Your task to perform on an android device: Open the calendar and show me this week's events? Image 0: 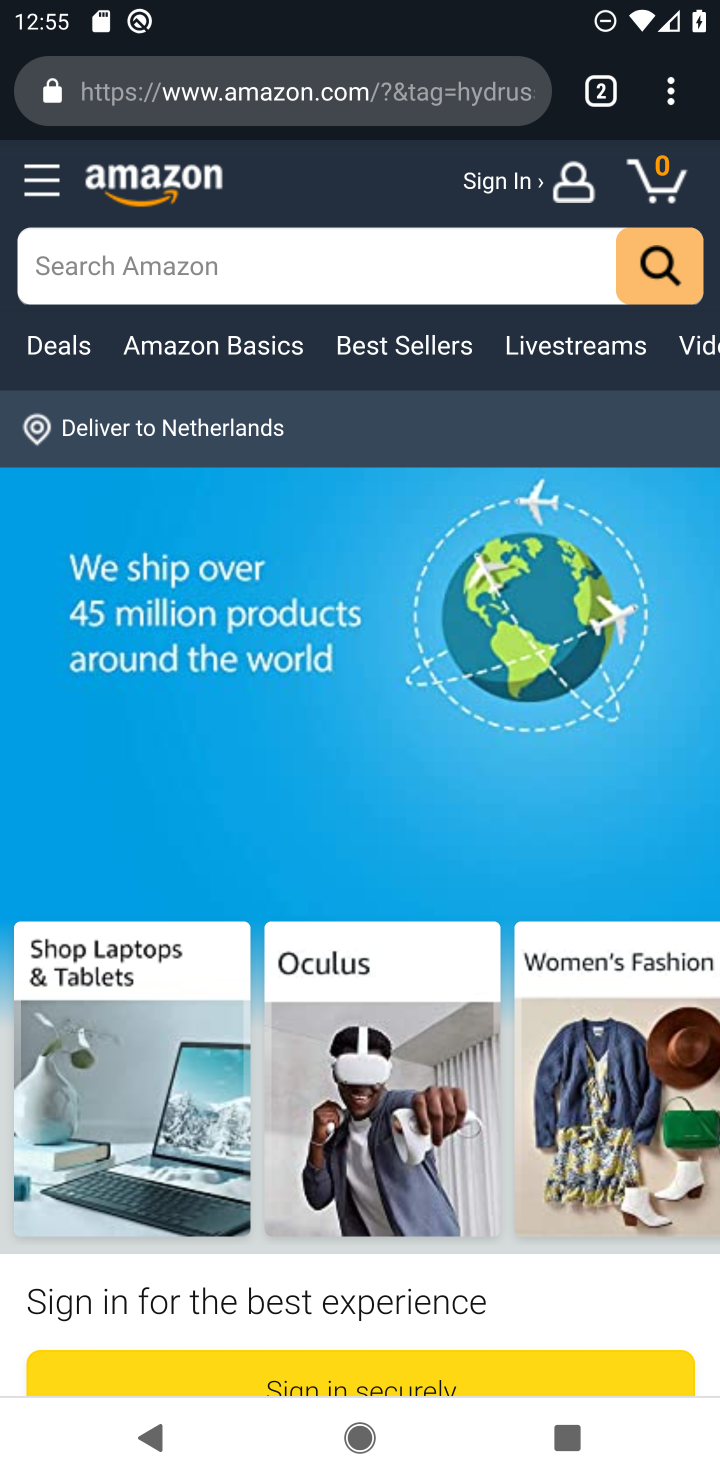
Step 0: press home button
Your task to perform on an android device: Open the calendar and show me this week's events? Image 1: 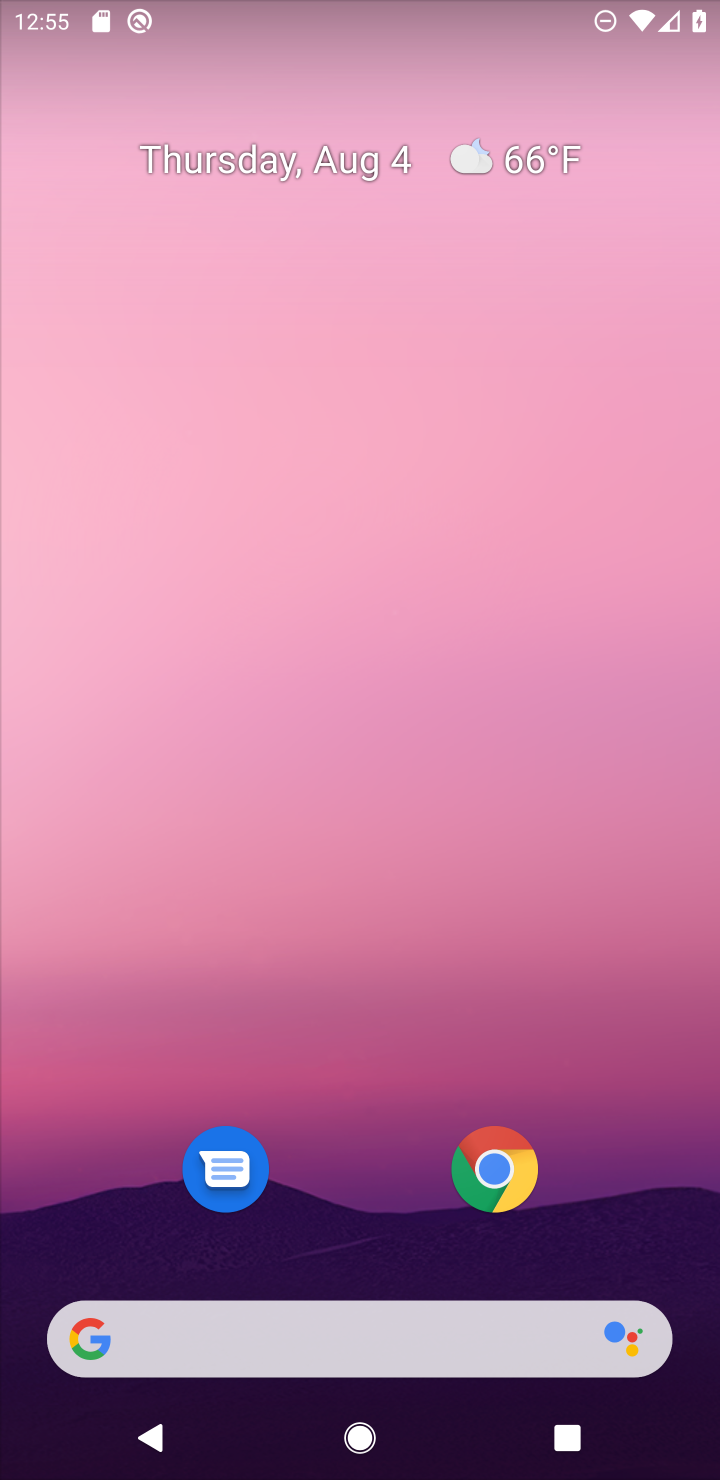
Step 1: drag from (390, 1185) to (399, 109)
Your task to perform on an android device: Open the calendar and show me this week's events? Image 2: 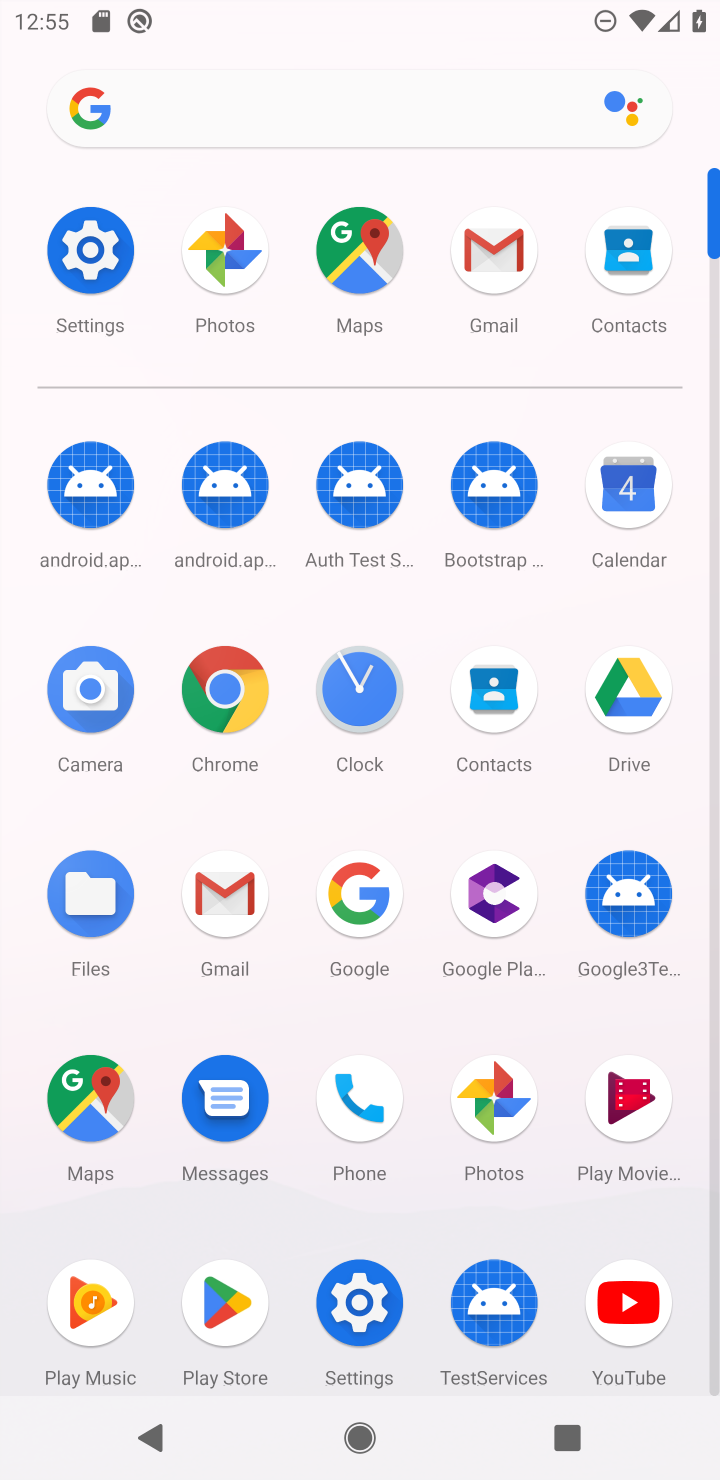
Step 2: click (622, 495)
Your task to perform on an android device: Open the calendar and show me this week's events? Image 3: 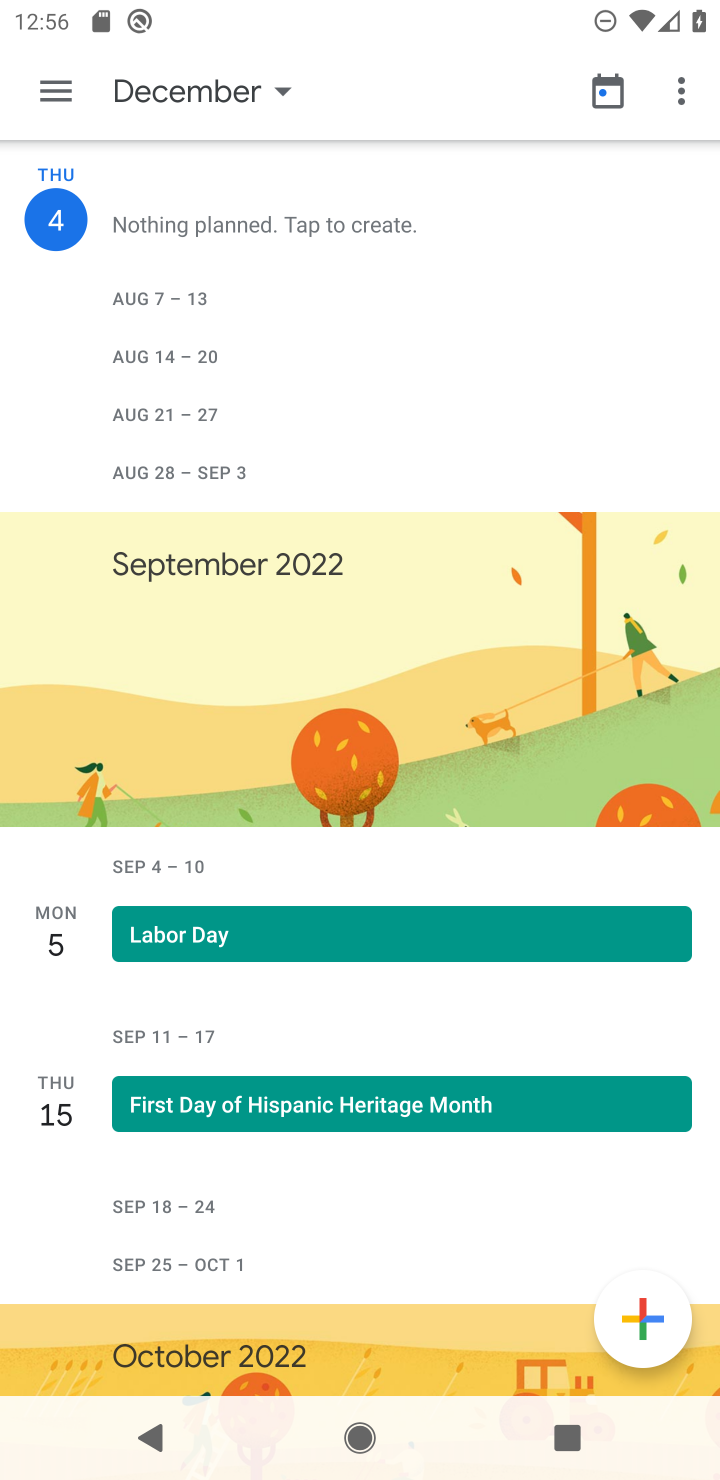
Step 3: click (625, 80)
Your task to perform on an android device: Open the calendar and show me this week's events? Image 4: 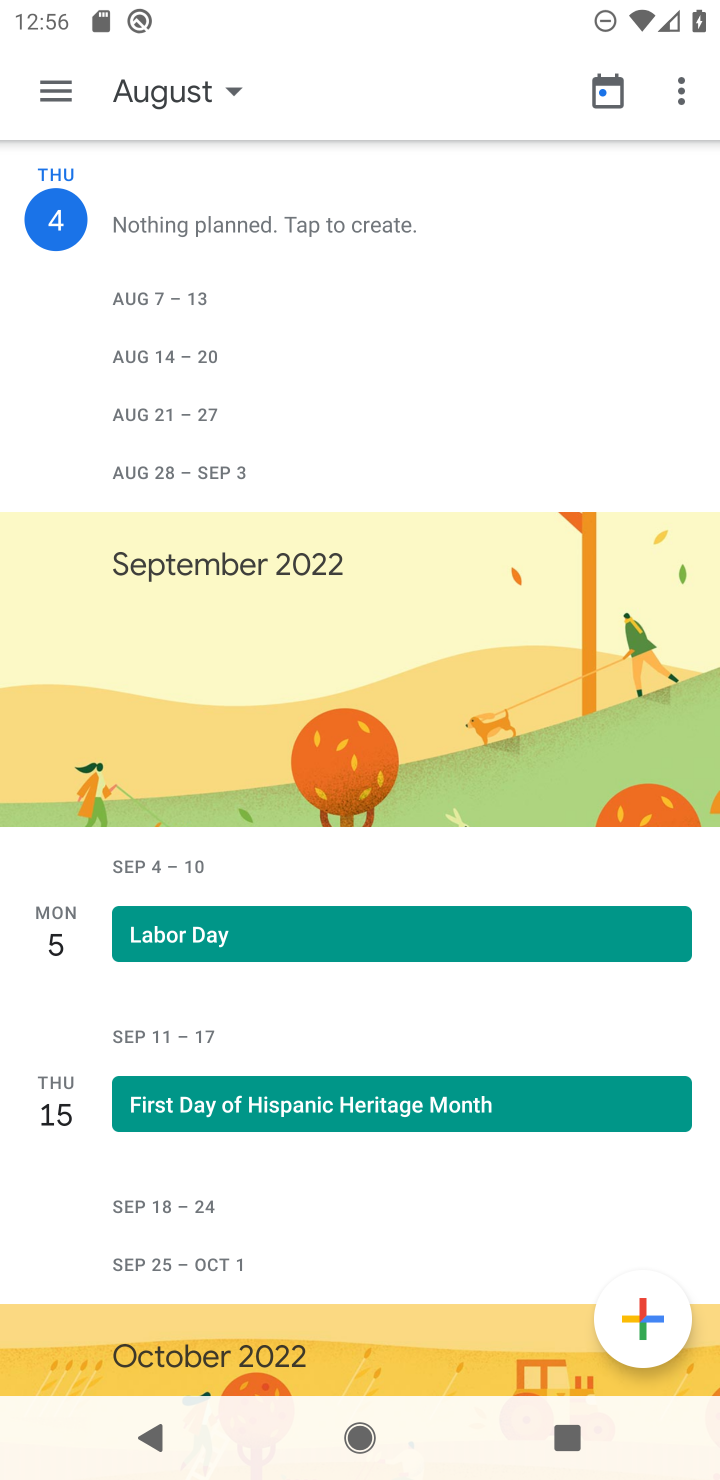
Step 4: click (238, 97)
Your task to perform on an android device: Open the calendar and show me this week's events? Image 5: 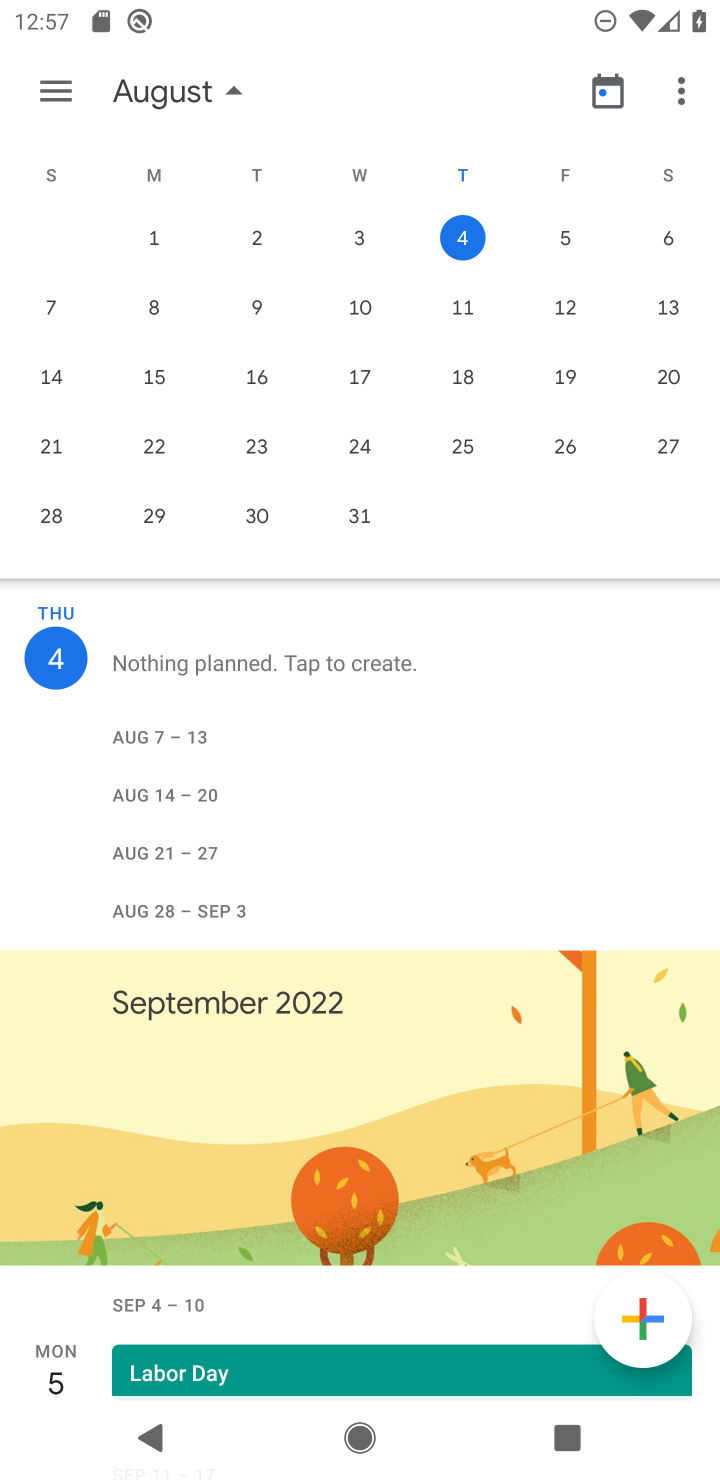
Step 5: click (48, 95)
Your task to perform on an android device: Open the calendar and show me this week's events? Image 6: 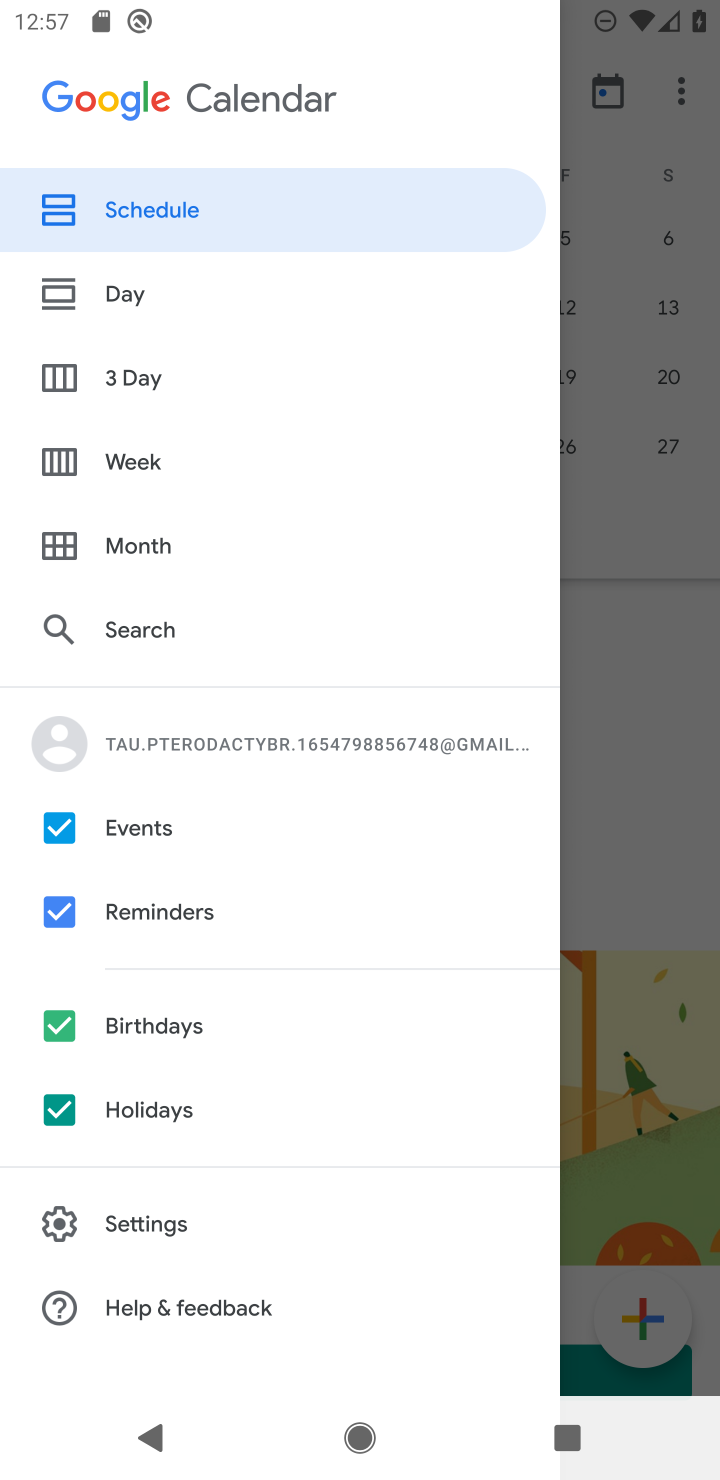
Step 6: click (108, 468)
Your task to perform on an android device: Open the calendar and show me this week's events? Image 7: 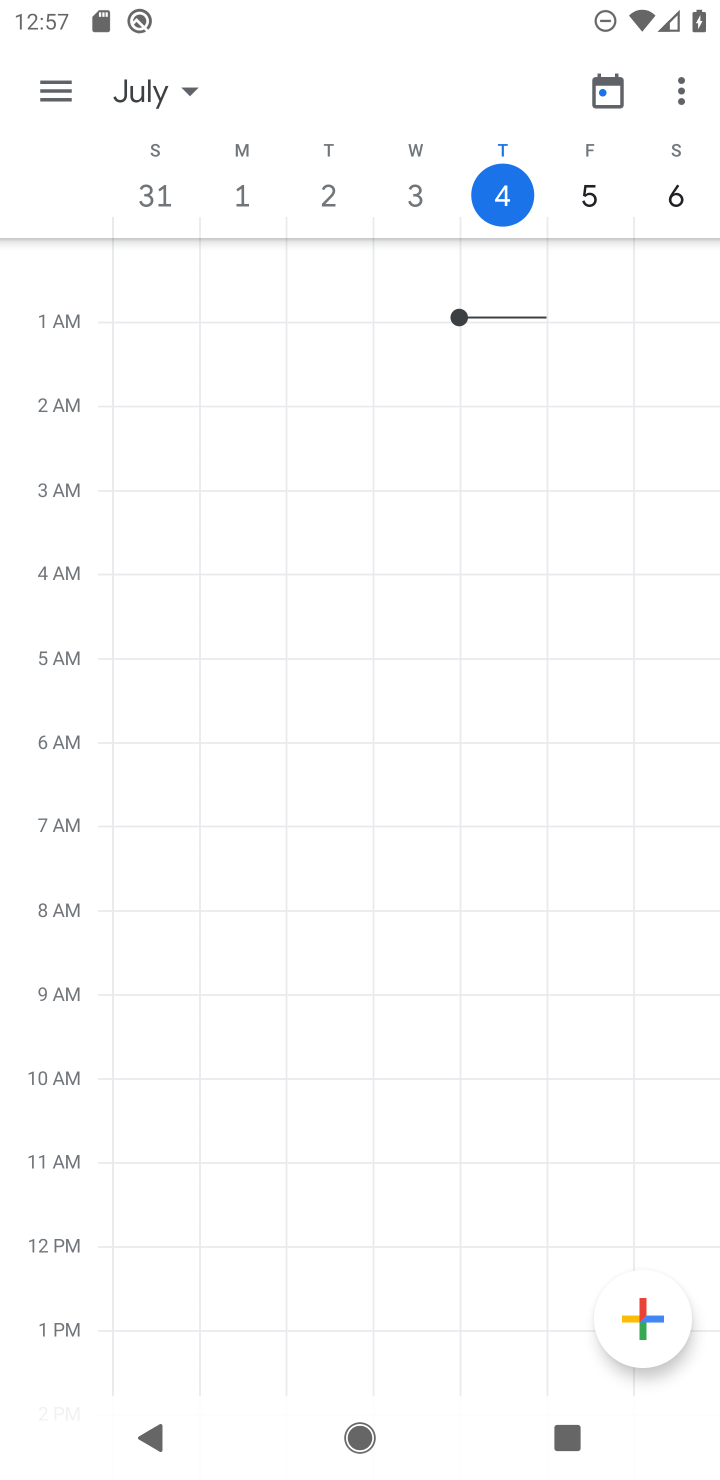
Step 7: click (43, 97)
Your task to perform on an android device: Open the calendar and show me this week's events? Image 8: 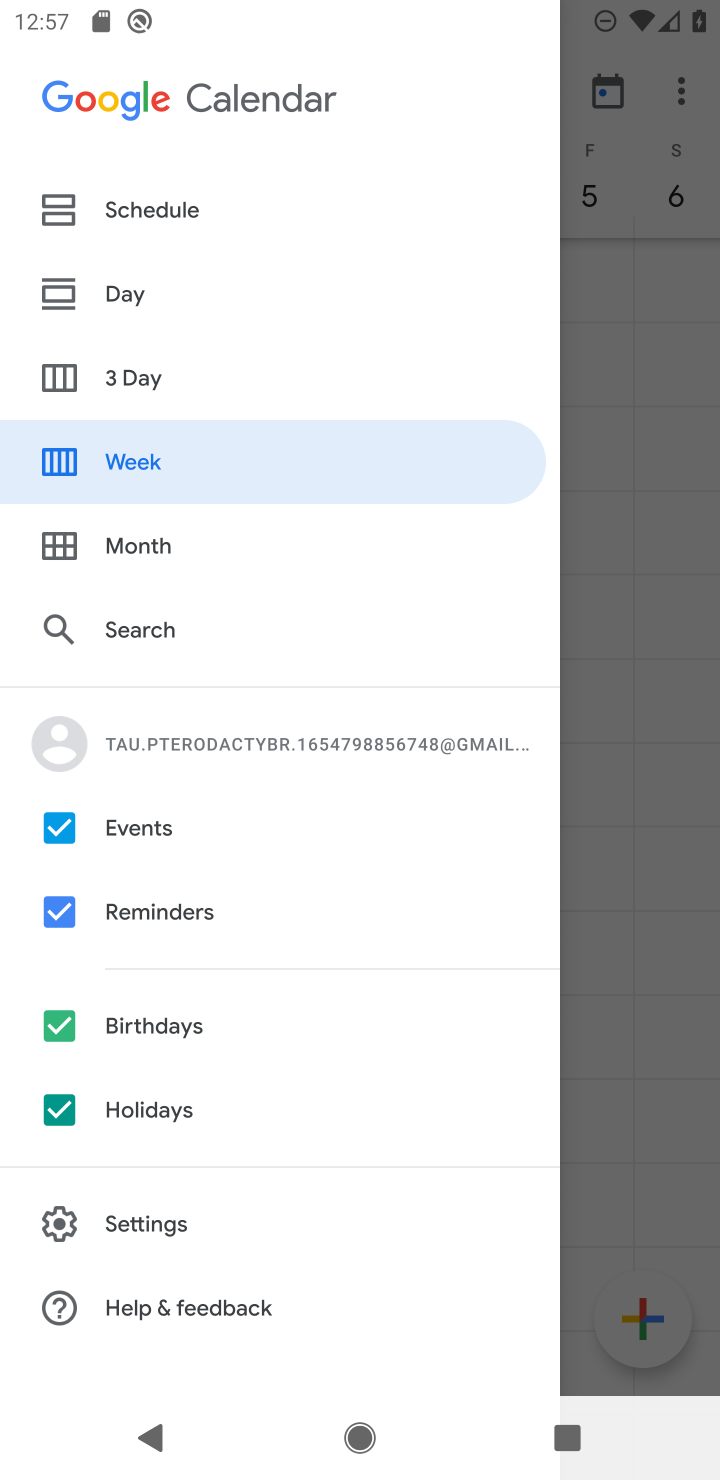
Step 8: click (51, 917)
Your task to perform on an android device: Open the calendar and show me this week's events? Image 9: 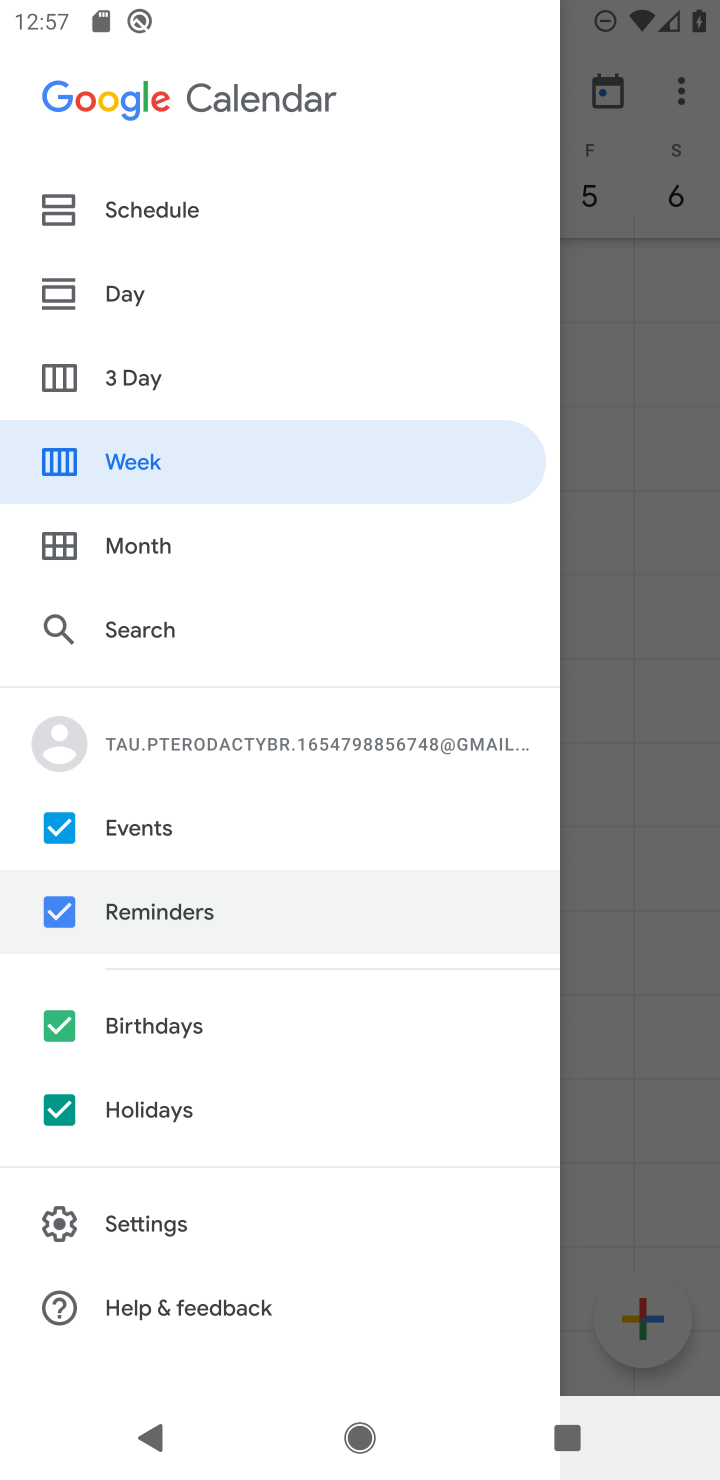
Step 9: click (67, 1024)
Your task to perform on an android device: Open the calendar and show me this week's events? Image 10: 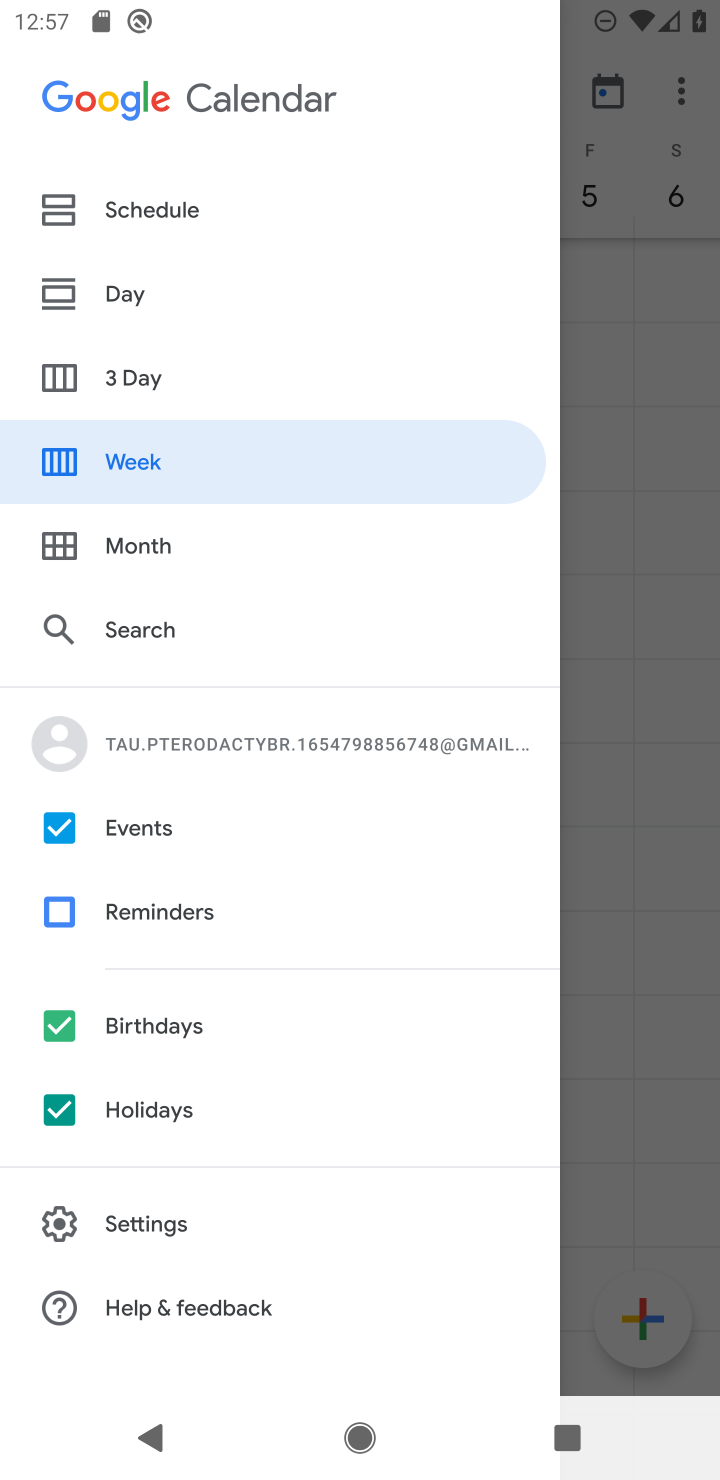
Step 10: click (65, 1105)
Your task to perform on an android device: Open the calendar and show me this week's events? Image 11: 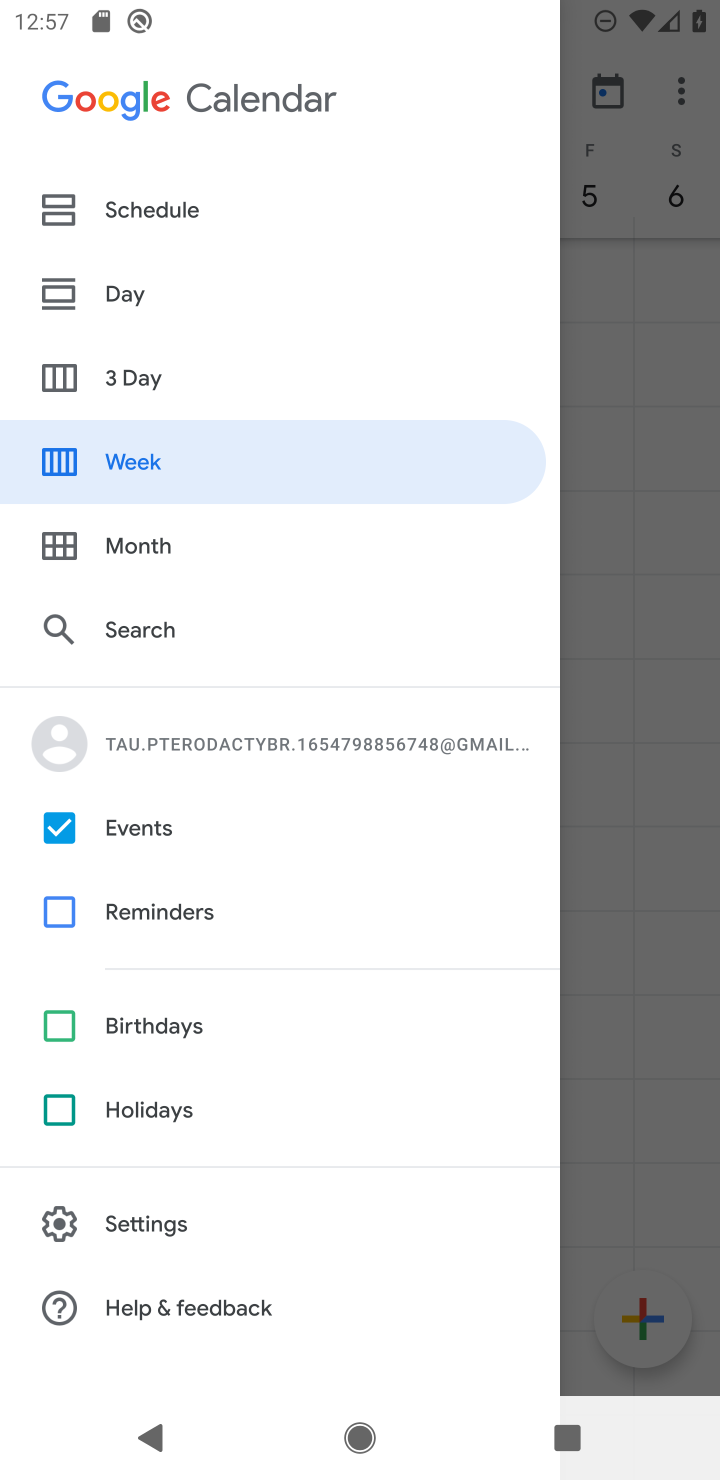
Step 11: click (113, 468)
Your task to perform on an android device: Open the calendar and show me this week's events? Image 12: 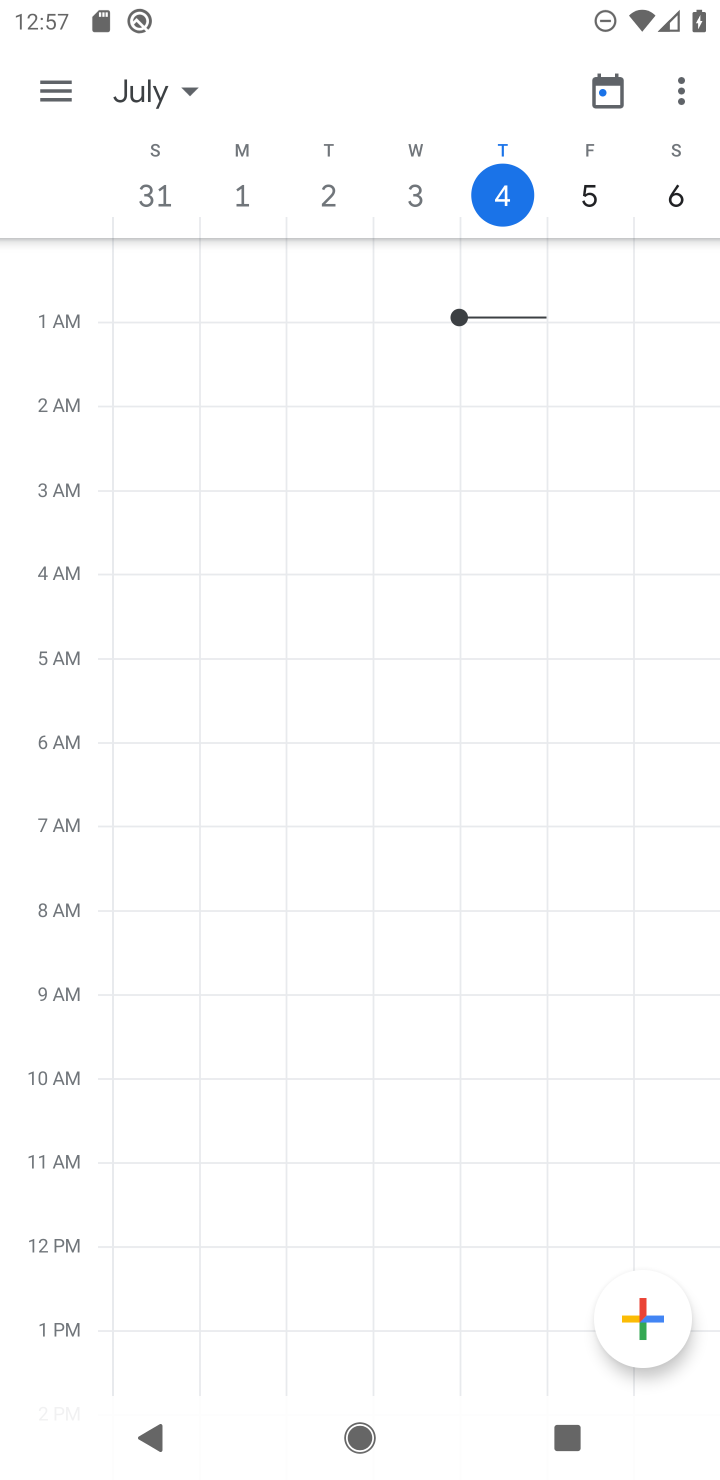
Step 12: task complete